Your task to perform on an android device: delete browsing data in the chrome app Image 0: 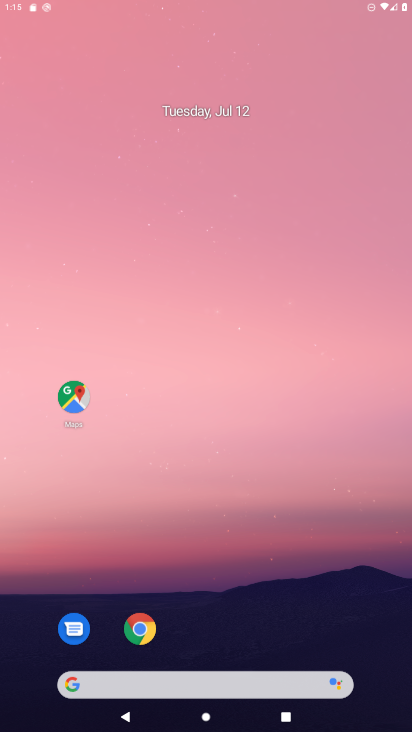
Step 0: press home button
Your task to perform on an android device: delete browsing data in the chrome app Image 1: 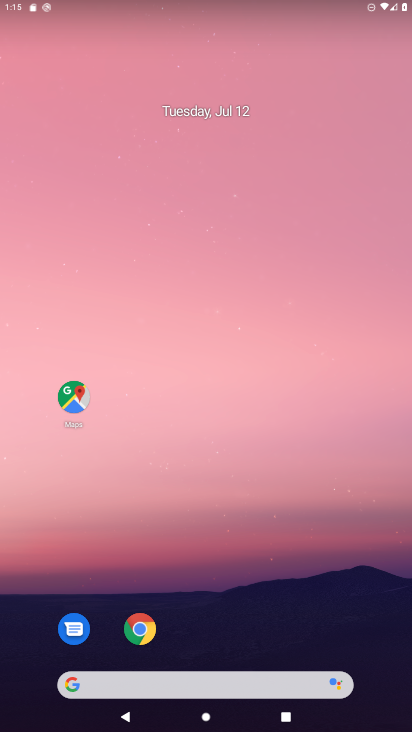
Step 1: click (139, 623)
Your task to perform on an android device: delete browsing data in the chrome app Image 2: 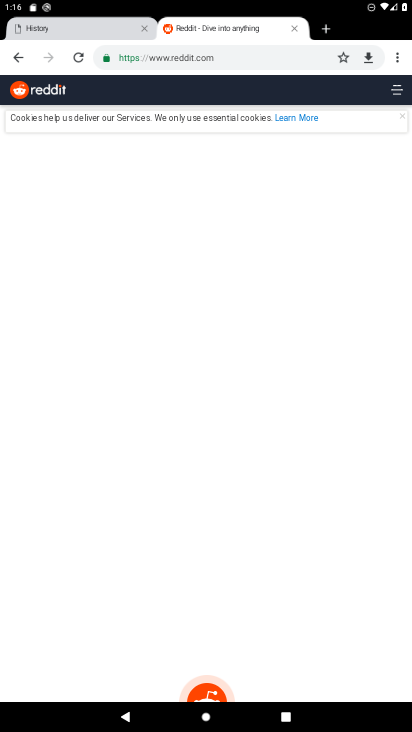
Step 2: click (399, 59)
Your task to perform on an android device: delete browsing data in the chrome app Image 3: 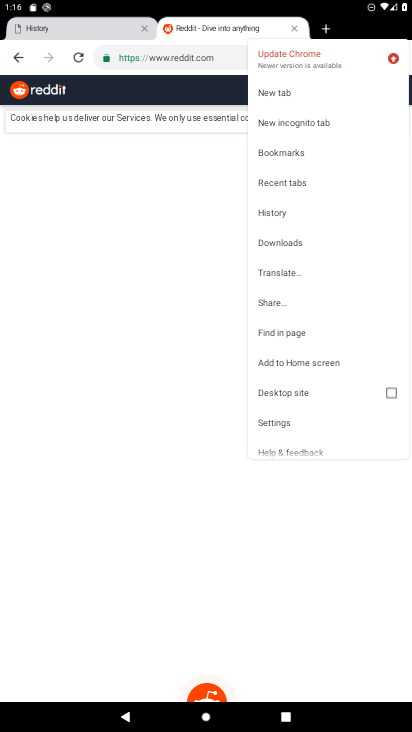
Step 3: click (274, 209)
Your task to perform on an android device: delete browsing data in the chrome app Image 4: 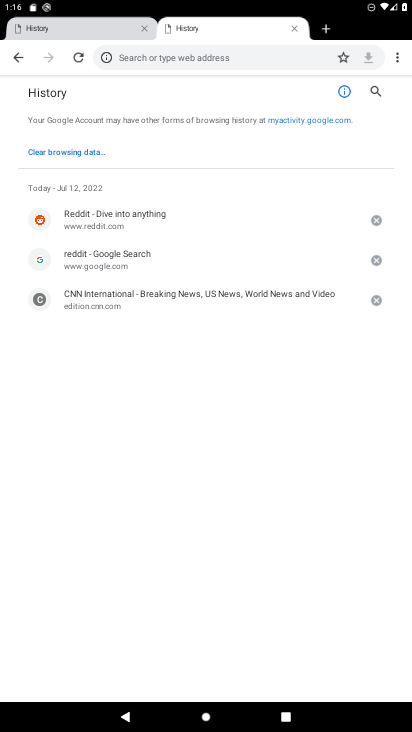
Step 4: click (79, 148)
Your task to perform on an android device: delete browsing data in the chrome app Image 5: 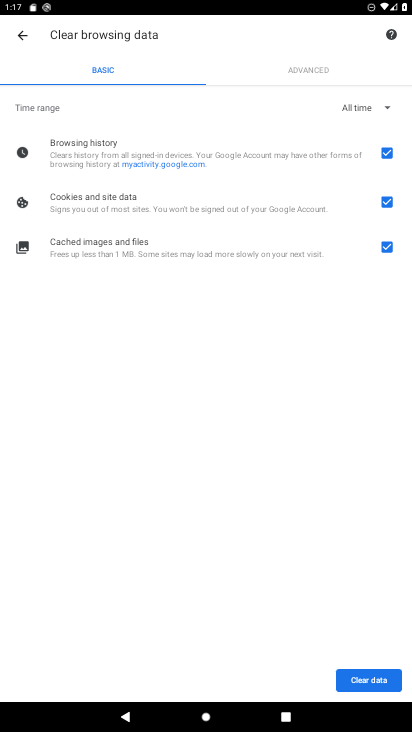
Step 5: click (356, 683)
Your task to perform on an android device: delete browsing data in the chrome app Image 6: 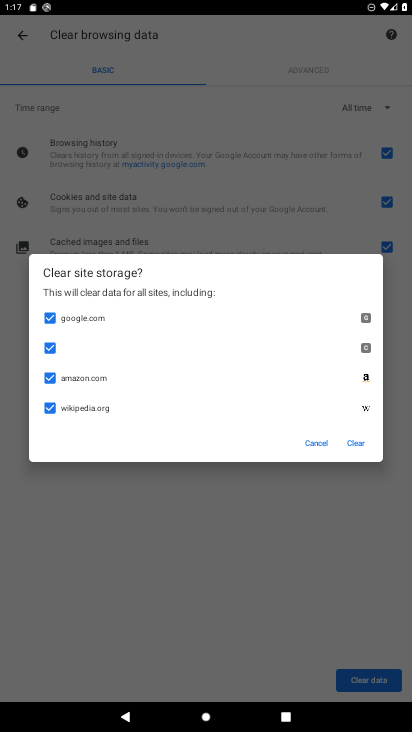
Step 6: click (362, 441)
Your task to perform on an android device: delete browsing data in the chrome app Image 7: 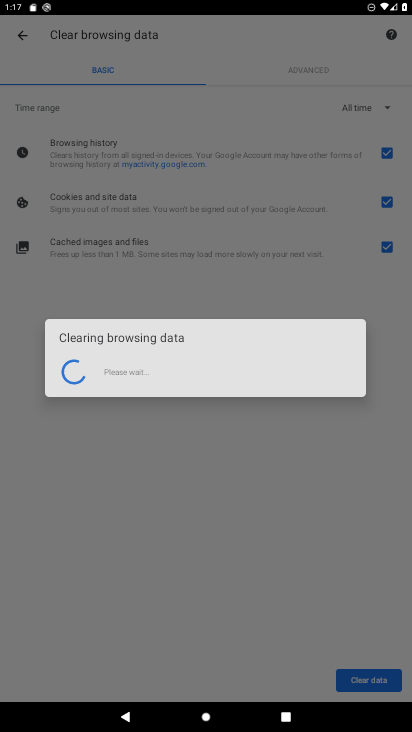
Step 7: task complete